Your task to perform on an android device: Open the web browser Image 0: 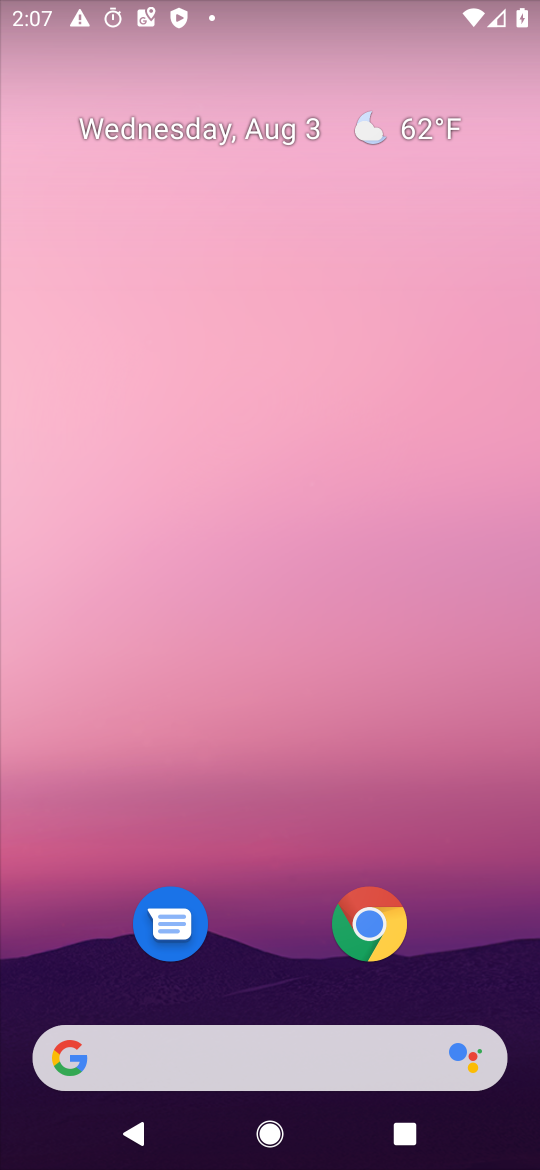
Step 0: click (356, 921)
Your task to perform on an android device: Open the web browser Image 1: 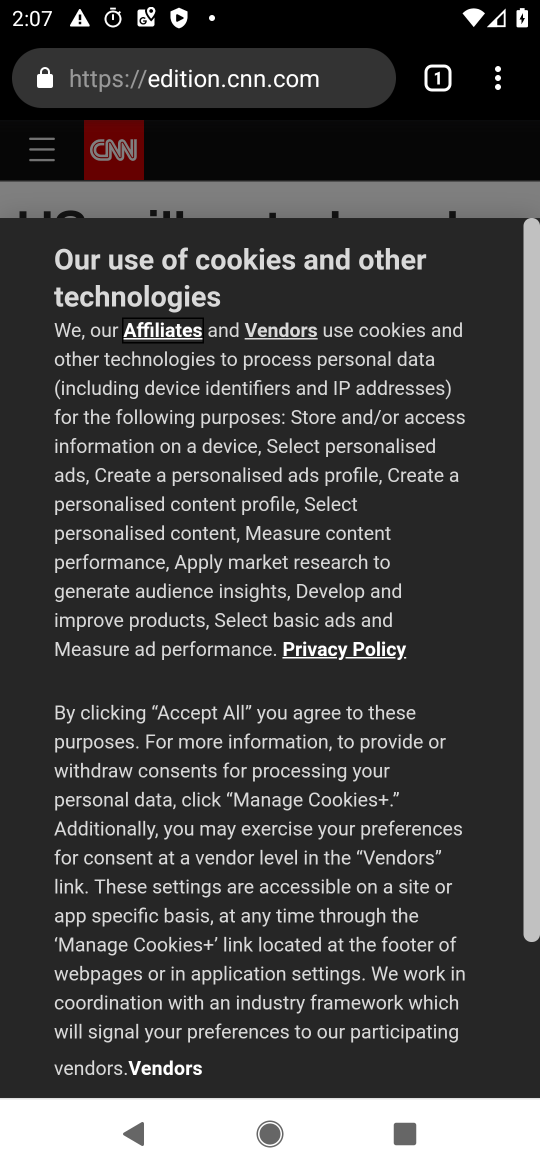
Step 1: task complete